Your task to perform on an android device: Open privacy settings Image 0: 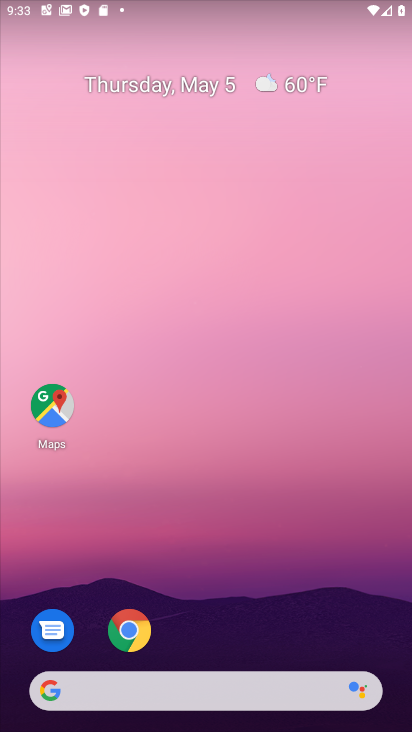
Step 0: drag from (307, 635) to (316, 41)
Your task to perform on an android device: Open privacy settings Image 1: 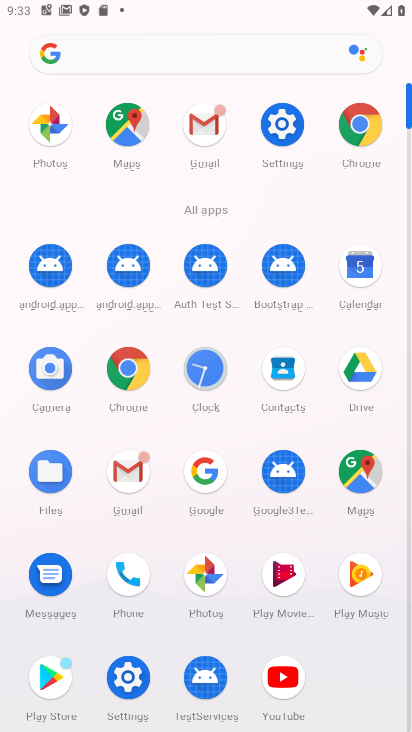
Step 1: click (129, 694)
Your task to perform on an android device: Open privacy settings Image 2: 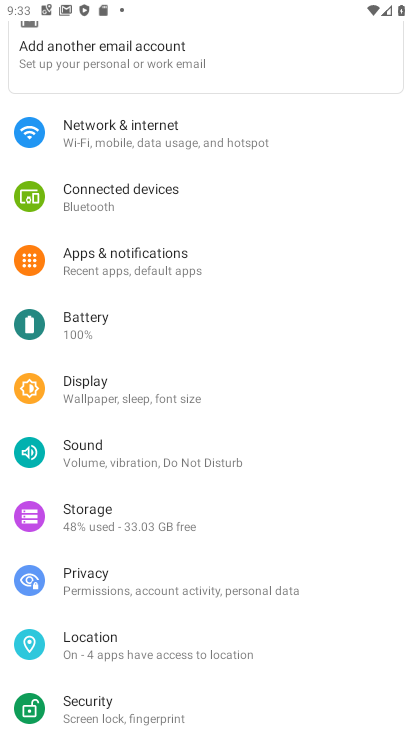
Step 2: drag from (208, 649) to (190, 259)
Your task to perform on an android device: Open privacy settings Image 3: 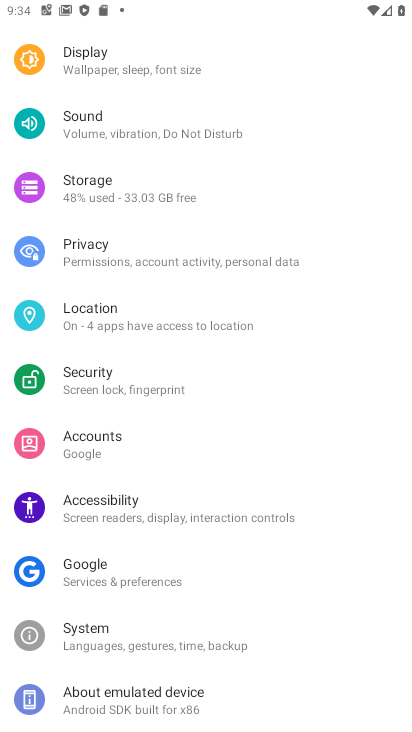
Step 3: drag from (170, 588) to (156, 278)
Your task to perform on an android device: Open privacy settings Image 4: 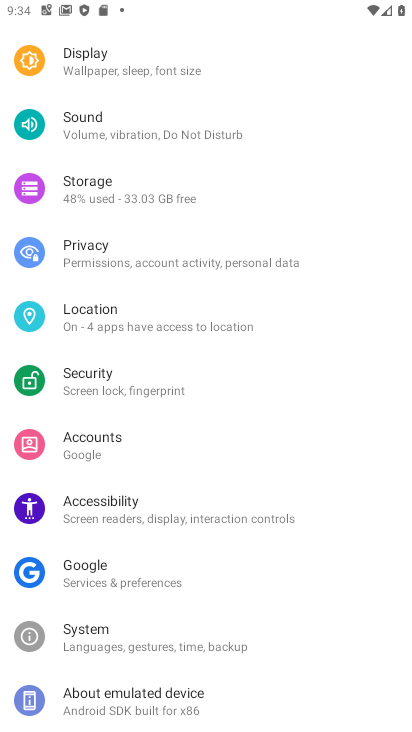
Step 4: click (131, 243)
Your task to perform on an android device: Open privacy settings Image 5: 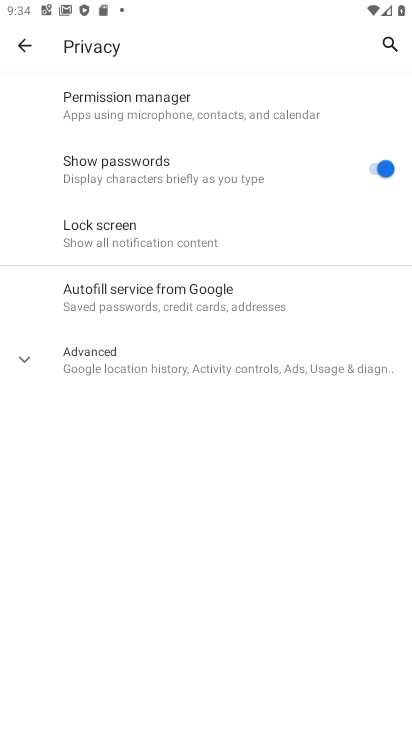
Step 5: task complete